Your task to perform on an android device: turn off picture-in-picture Image 0: 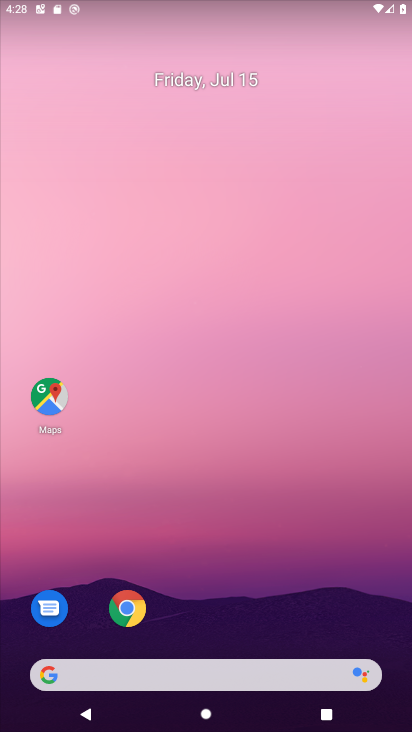
Step 0: drag from (321, 675) to (259, 88)
Your task to perform on an android device: turn off picture-in-picture Image 1: 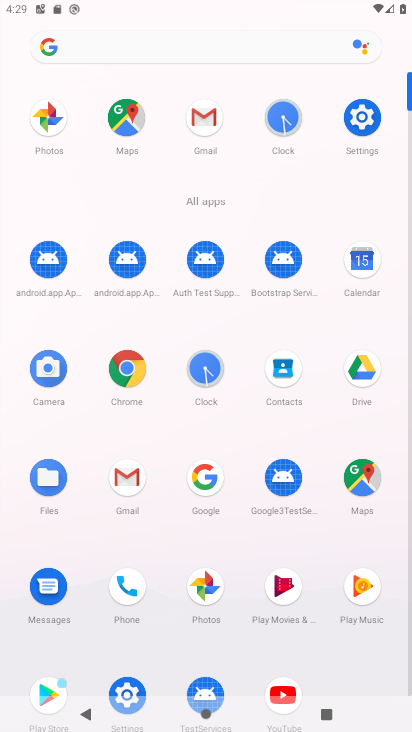
Step 1: click (127, 369)
Your task to perform on an android device: turn off picture-in-picture Image 2: 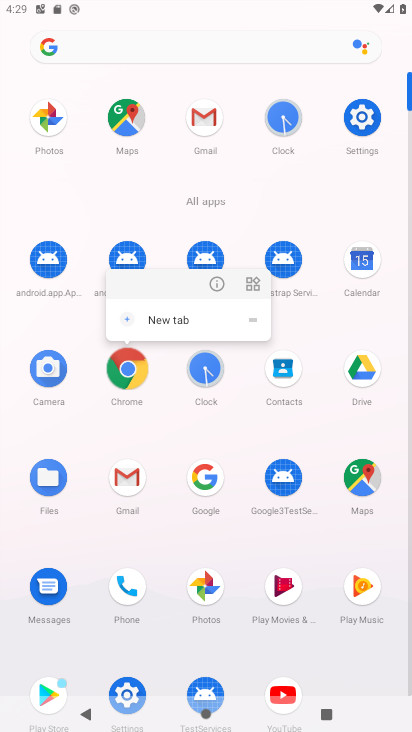
Step 2: click (127, 370)
Your task to perform on an android device: turn off picture-in-picture Image 3: 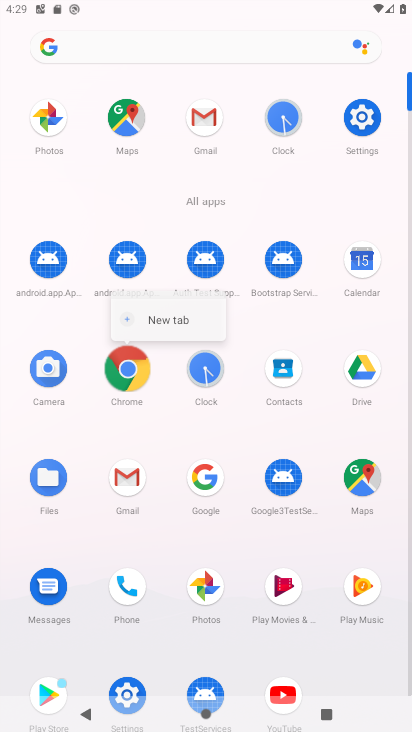
Step 3: click (128, 371)
Your task to perform on an android device: turn off picture-in-picture Image 4: 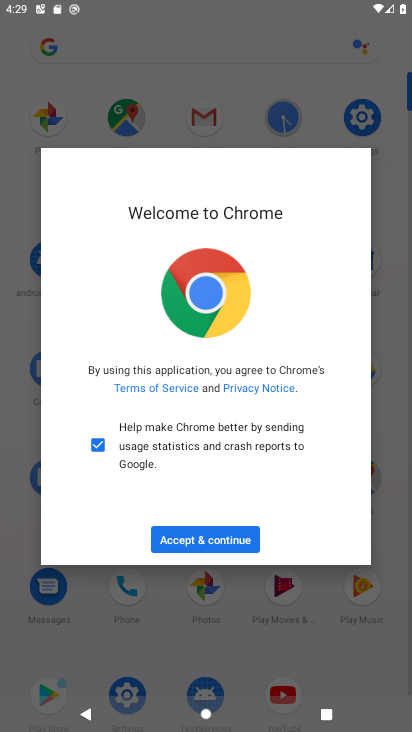
Step 4: click (328, 89)
Your task to perform on an android device: turn off picture-in-picture Image 5: 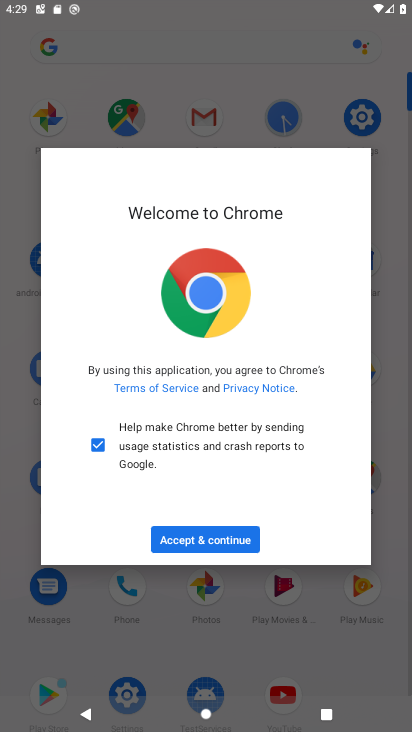
Step 5: click (322, 96)
Your task to perform on an android device: turn off picture-in-picture Image 6: 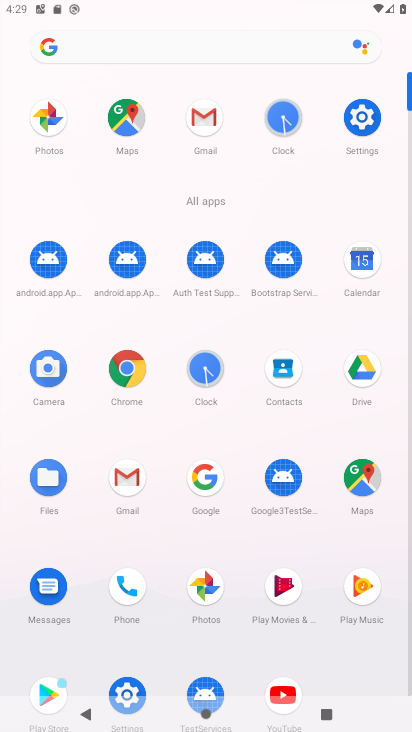
Step 6: click (319, 99)
Your task to perform on an android device: turn off picture-in-picture Image 7: 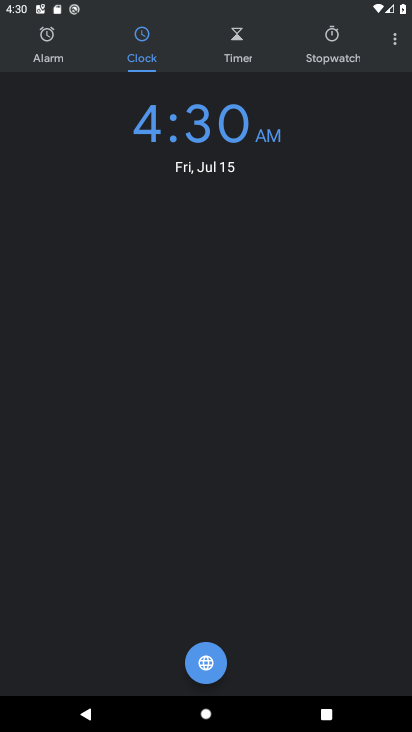
Step 7: press back button
Your task to perform on an android device: turn off picture-in-picture Image 8: 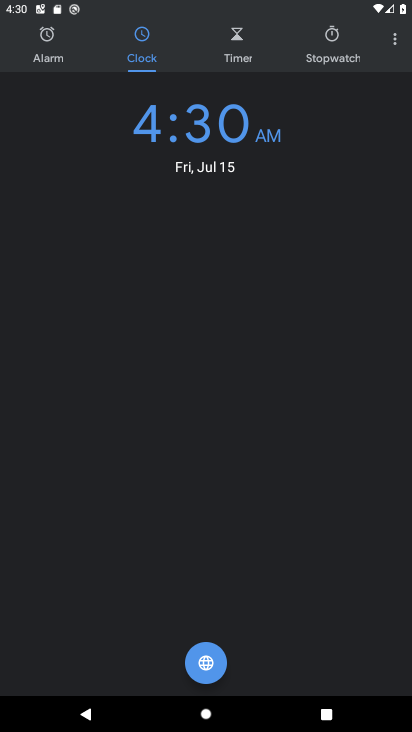
Step 8: press back button
Your task to perform on an android device: turn off picture-in-picture Image 9: 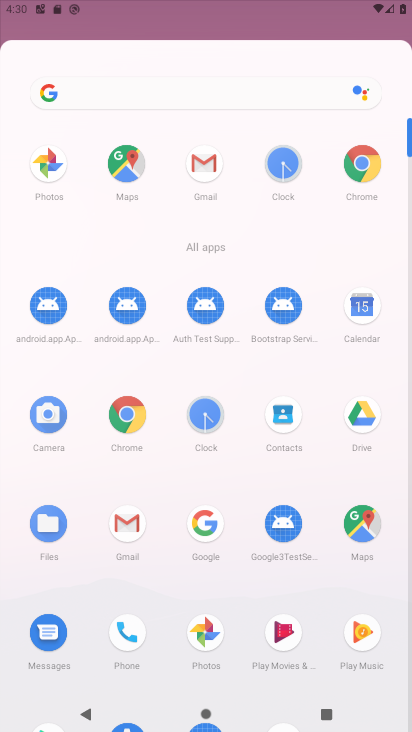
Step 9: press back button
Your task to perform on an android device: turn off picture-in-picture Image 10: 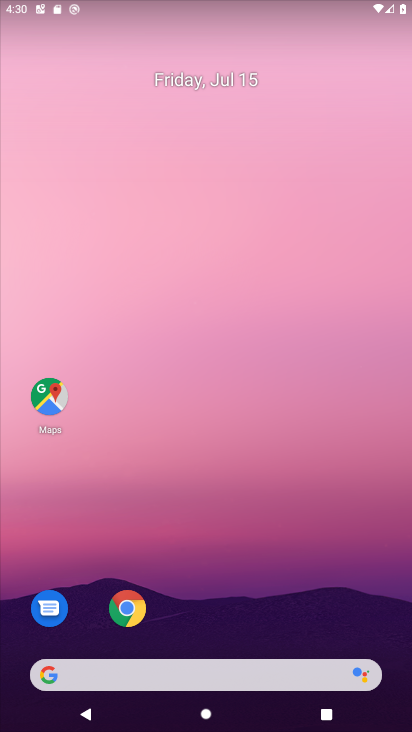
Step 10: drag from (153, 539) to (139, 36)
Your task to perform on an android device: turn off picture-in-picture Image 11: 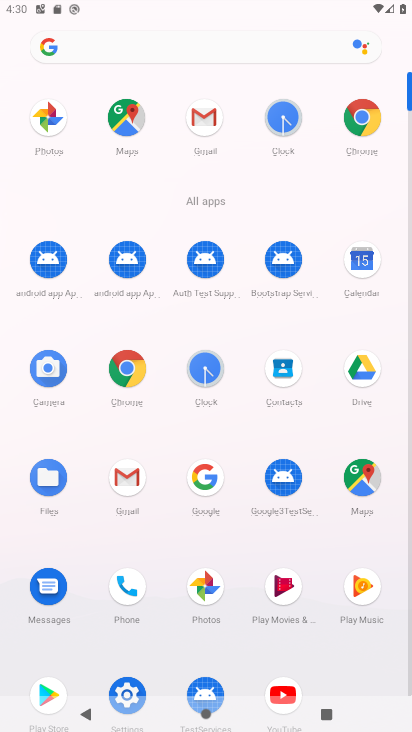
Step 11: click (124, 370)
Your task to perform on an android device: turn off picture-in-picture Image 12: 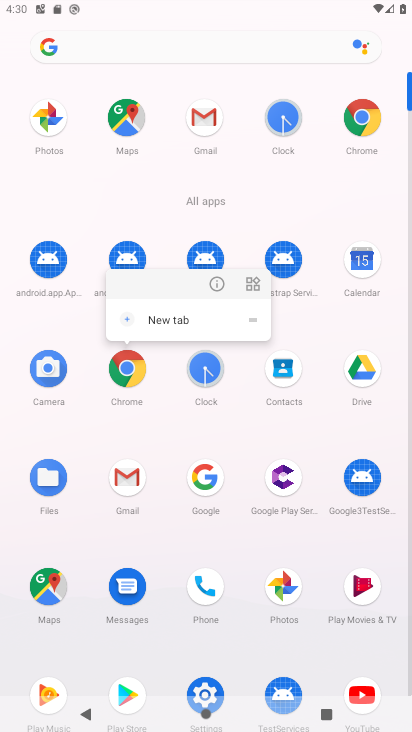
Step 12: click (220, 284)
Your task to perform on an android device: turn off picture-in-picture Image 13: 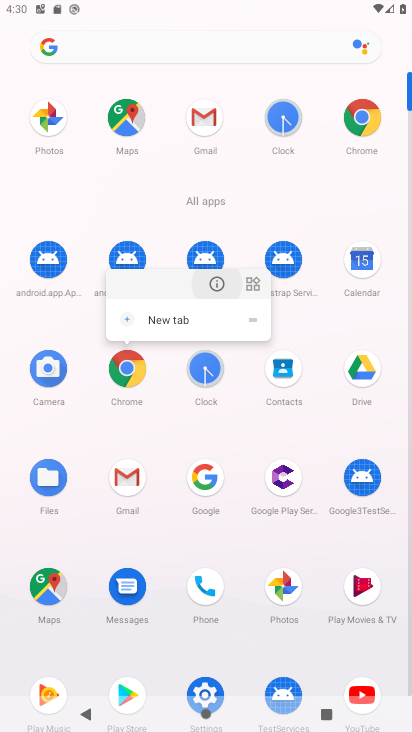
Step 13: click (218, 286)
Your task to perform on an android device: turn off picture-in-picture Image 14: 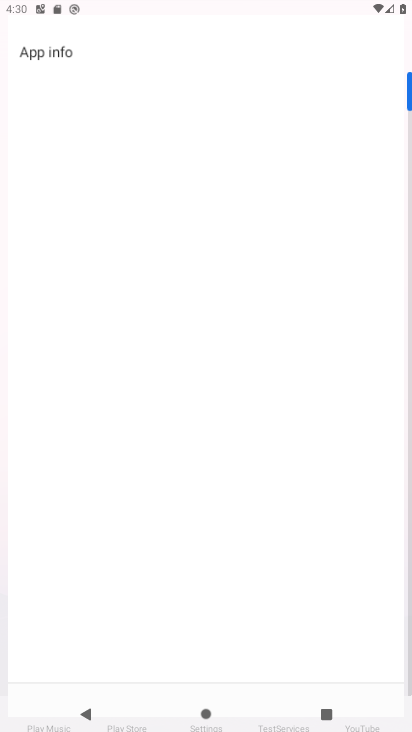
Step 14: click (221, 285)
Your task to perform on an android device: turn off picture-in-picture Image 15: 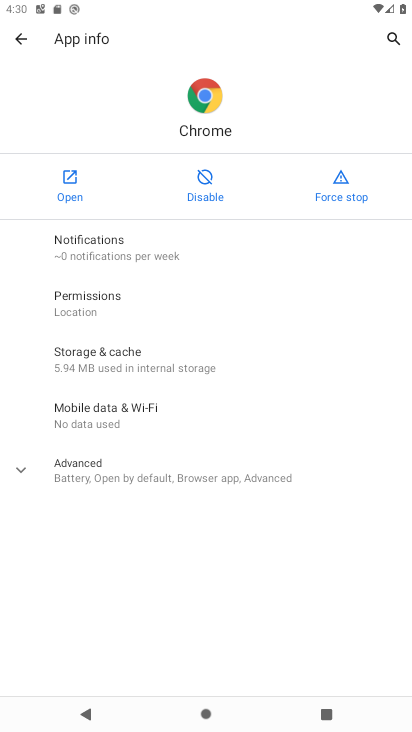
Step 15: click (79, 462)
Your task to perform on an android device: turn off picture-in-picture Image 16: 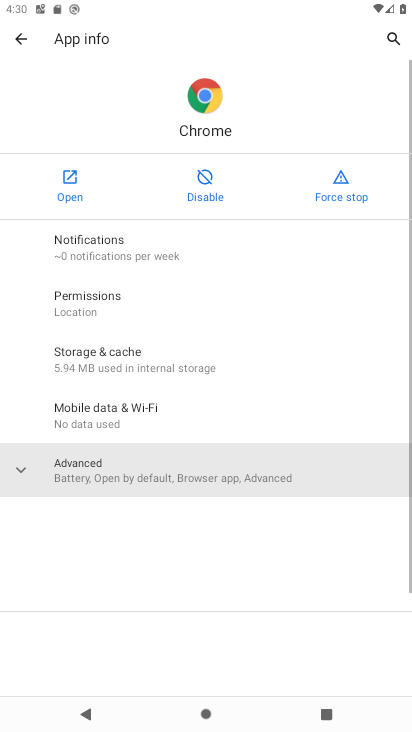
Step 16: click (82, 465)
Your task to perform on an android device: turn off picture-in-picture Image 17: 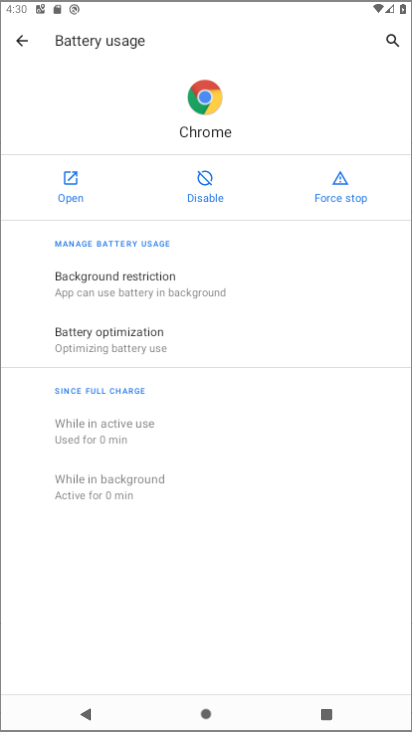
Step 17: drag from (138, 615) to (115, 252)
Your task to perform on an android device: turn off picture-in-picture Image 18: 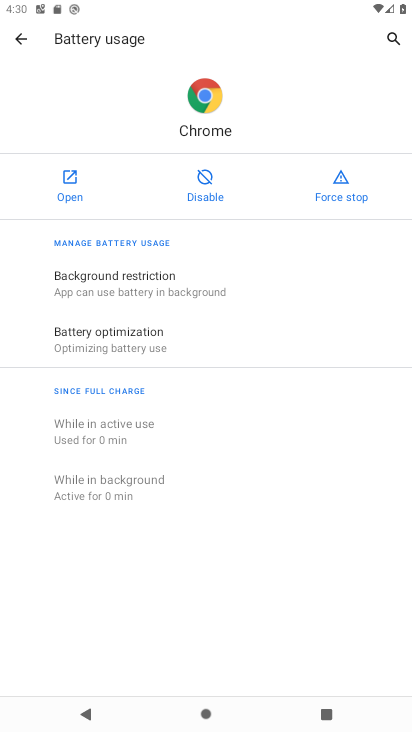
Step 18: click (16, 44)
Your task to perform on an android device: turn off picture-in-picture Image 19: 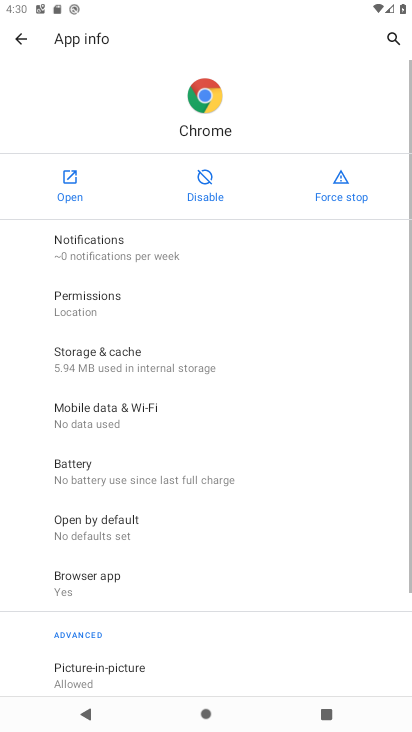
Step 19: drag from (147, 419) to (150, 223)
Your task to perform on an android device: turn off picture-in-picture Image 20: 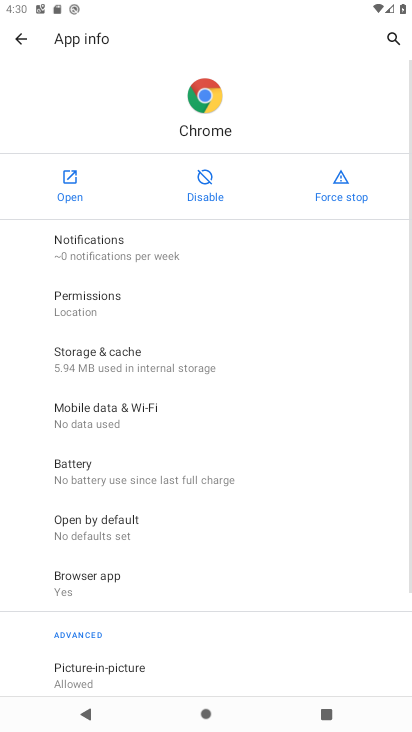
Step 20: drag from (168, 553) to (176, 235)
Your task to perform on an android device: turn off picture-in-picture Image 21: 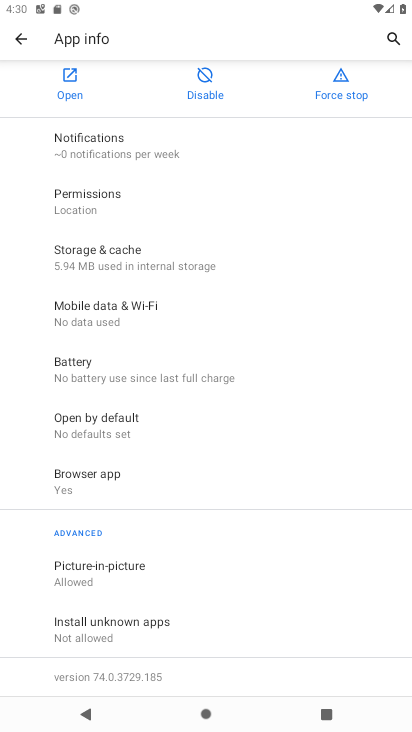
Step 21: click (73, 583)
Your task to perform on an android device: turn off picture-in-picture Image 22: 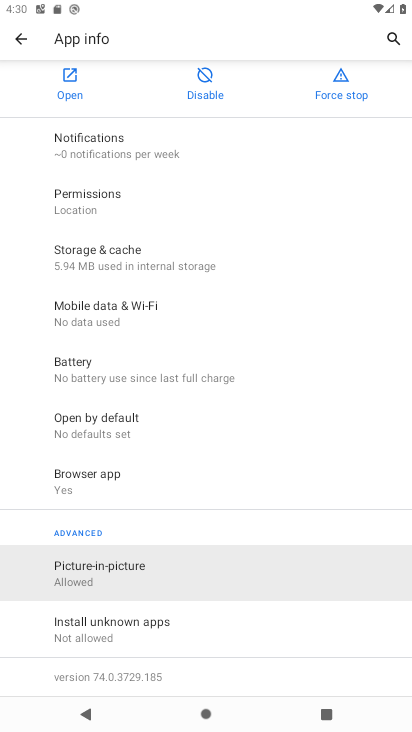
Step 22: click (75, 579)
Your task to perform on an android device: turn off picture-in-picture Image 23: 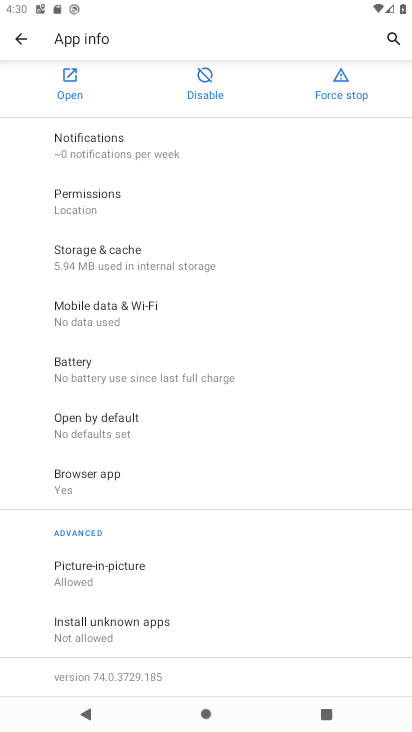
Step 23: click (75, 579)
Your task to perform on an android device: turn off picture-in-picture Image 24: 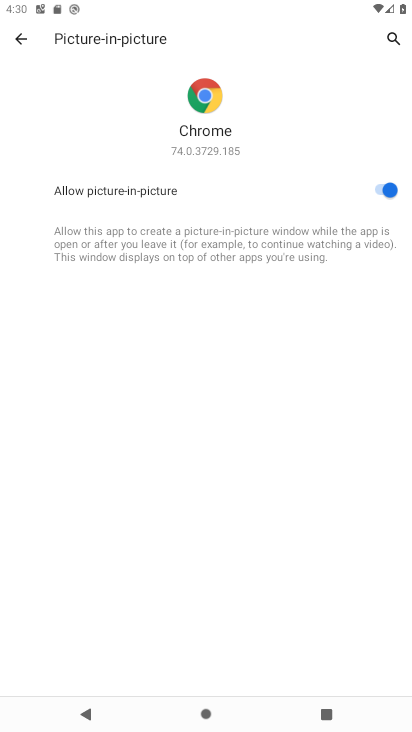
Step 24: click (387, 193)
Your task to perform on an android device: turn off picture-in-picture Image 25: 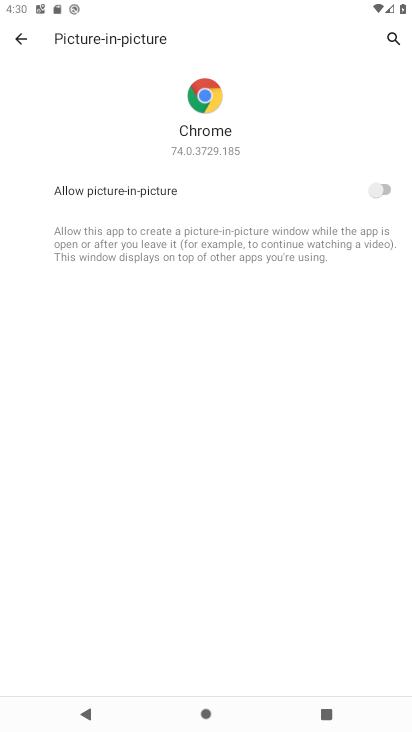
Step 25: task complete